Your task to perform on an android device: turn off airplane mode Image 0: 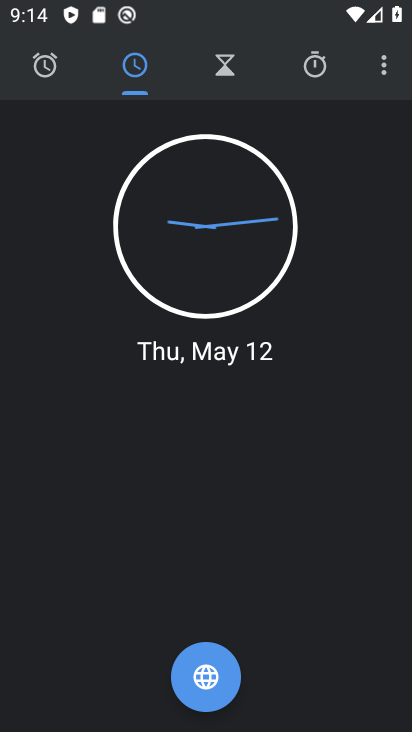
Step 0: press home button
Your task to perform on an android device: turn off airplane mode Image 1: 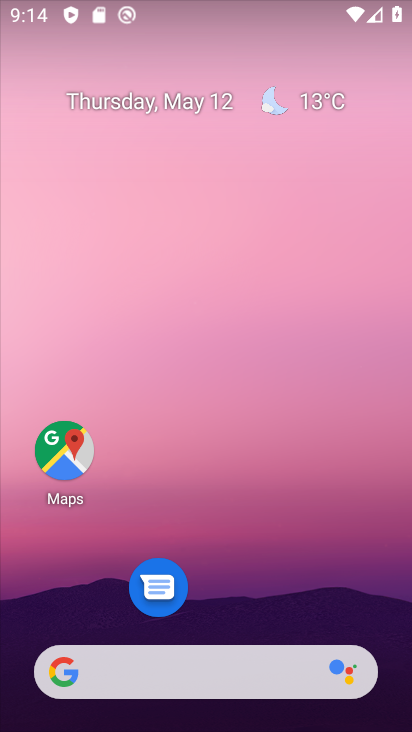
Step 1: drag from (211, 648) to (390, 108)
Your task to perform on an android device: turn off airplane mode Image 2: 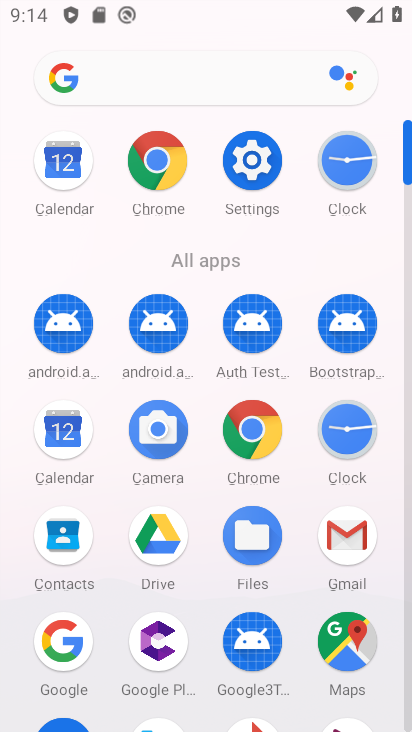
Step 2: click (269, 167)
Your task to perform on an android device: turn off airplane mode Image 3: 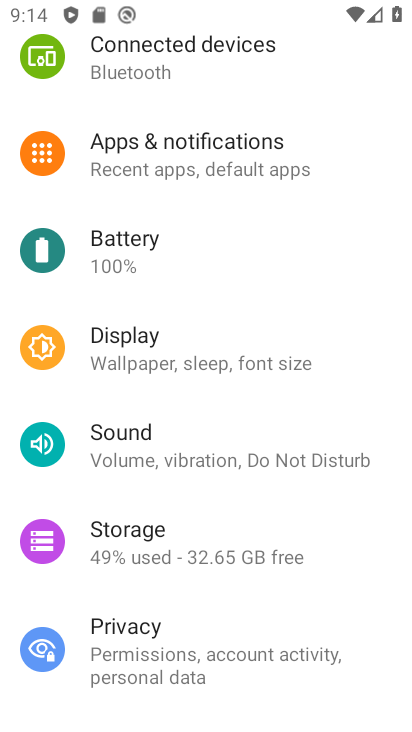
Step 3: drag from (250, 211) to (128, 730)
Your task to perform on an android device: turn off airplane mode Image 4: 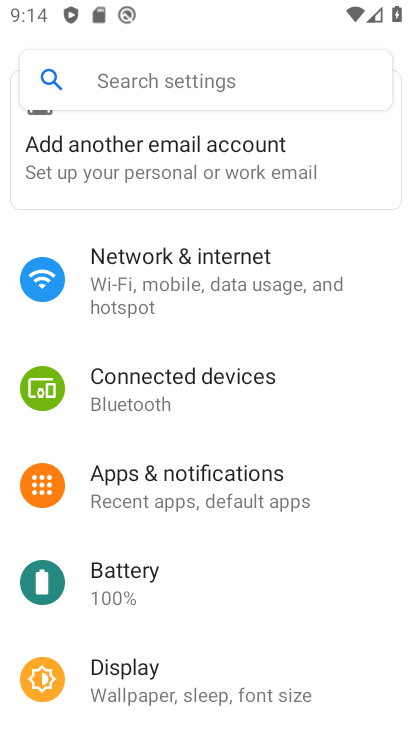
Step 4: click (100, 248)
Your task to perform on an android device: turn off airplane mode Image 5: 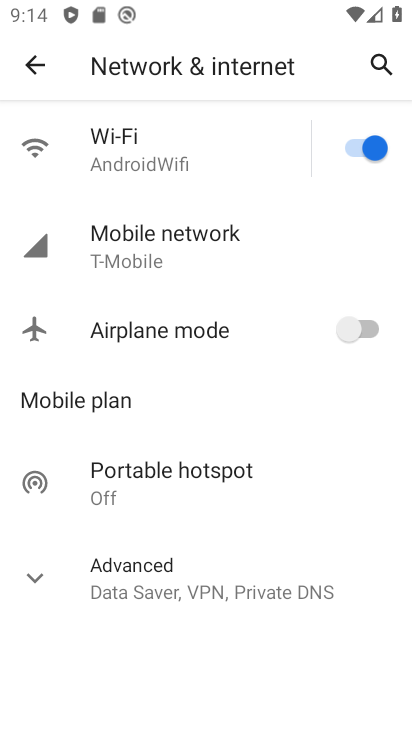
Step 5: task complete